Your task to perform on an android device: read, delete, or share a saved page in the chrome app Image 0: 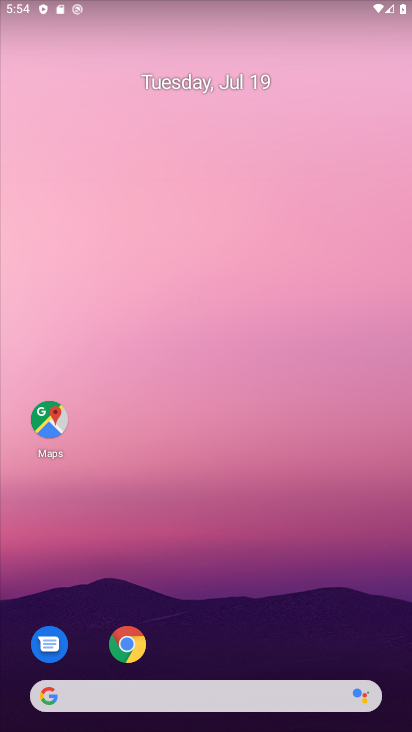
Step 0: click (129, 644)
Your task to perform on an android device: read, delete, or share a saved page in the chrome app Image 1: 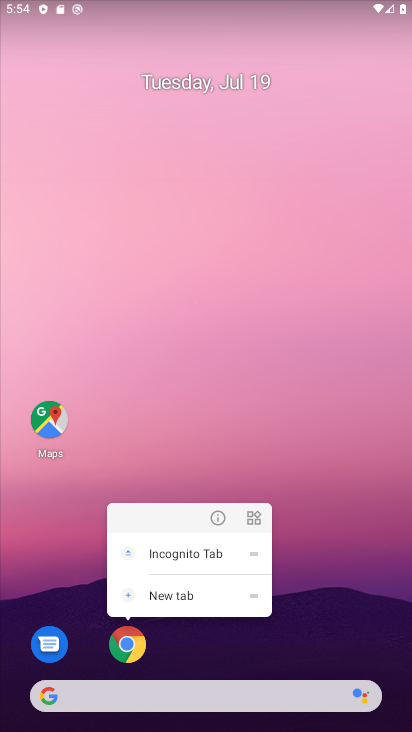
Step 1: click (129, 644)
Your task to perform on an android device: read, delete, or share a saved page in the chrome app Image 2: 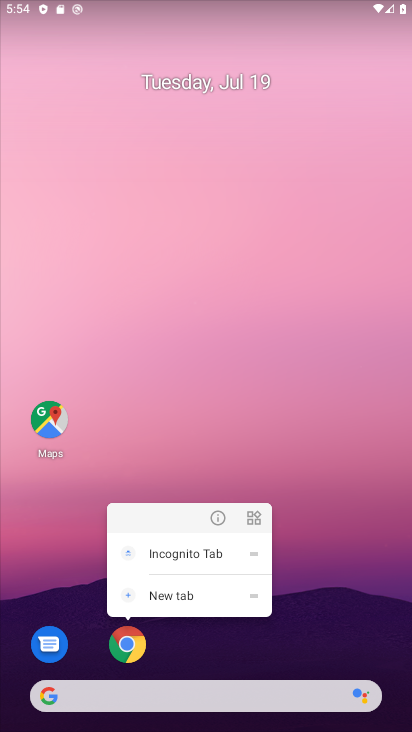
Step 2: click (129, 644)
Your task to perform on an android device: read, delete, or share a saved page in the chrome app Image 3: 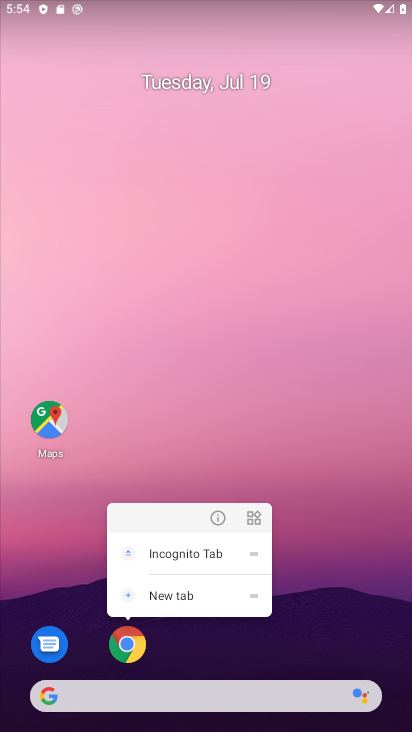
Step 3: click (129, 644)
Your task to perform on an android device: read, delete, or share a saved page in the chrome app Image 4: 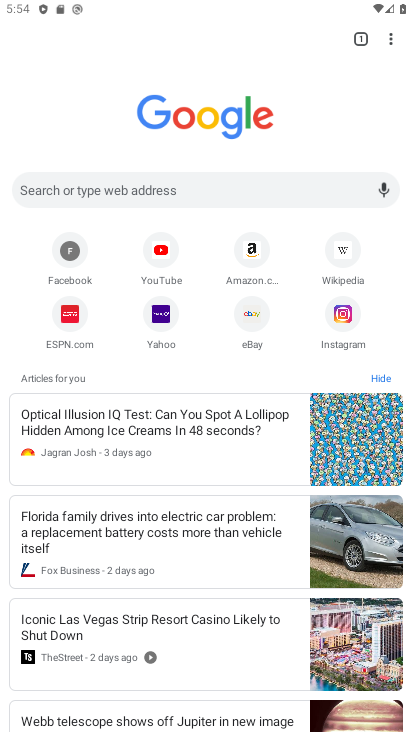
Step 4: click (391, 36)
Your task to perform on an android device: read, delete, or share a saved page in the chrome app Image 5: 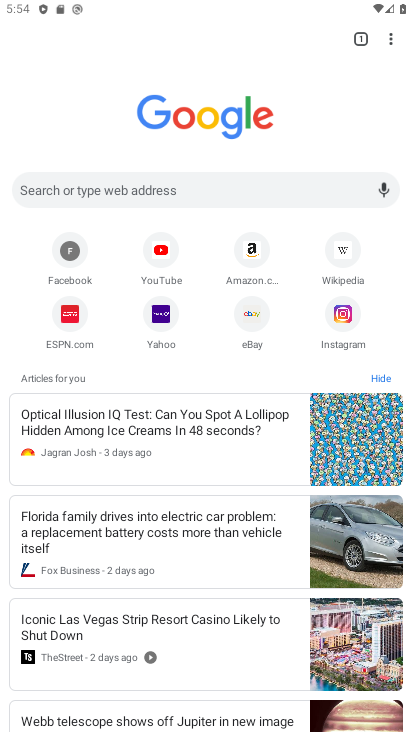
Step 5: click (390, 37)
Your task to perform on an android device: read, delete, or share a saved page in the chrome app Image 6: 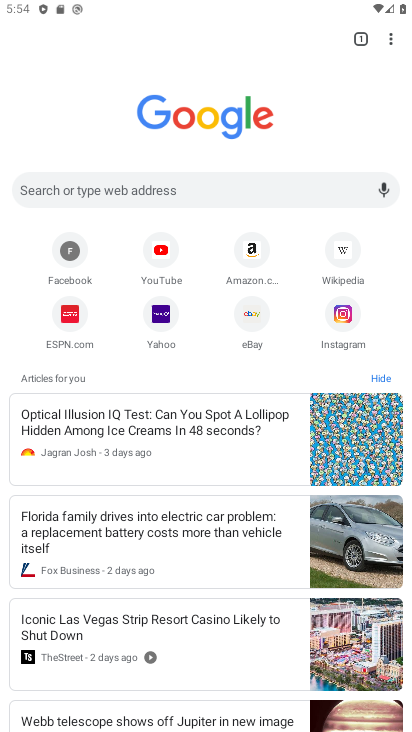
Step 6: click (390, 37)
Your task to perform on an android device: read, delete, or share a saved page in the chrome app Image 7: 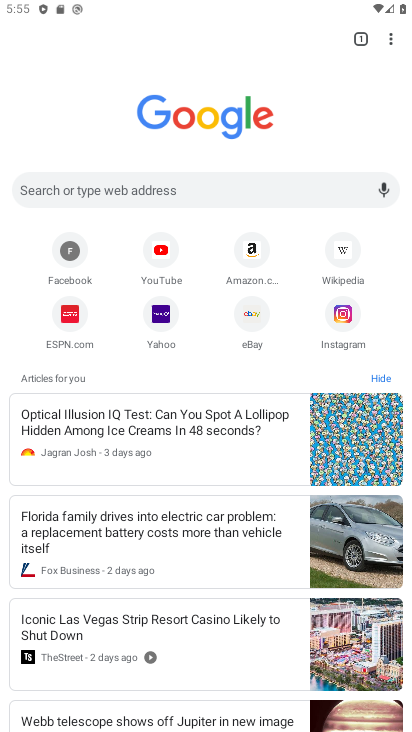
Step 7: click (389, 40)
Your task to perform on an android device: read, delete, or share a saved page in the chrome app Image 8: 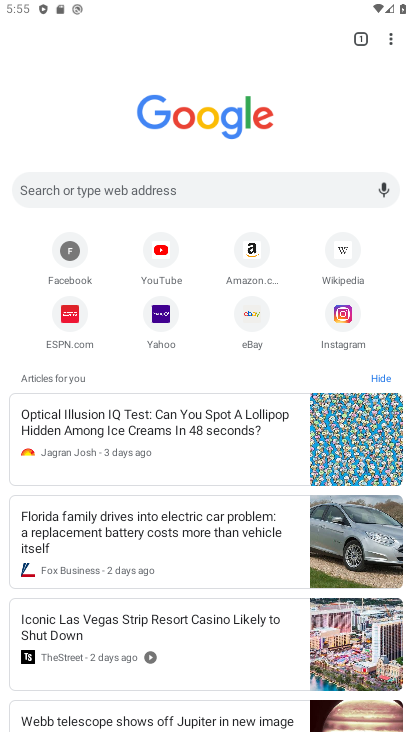
Step 8: click (391, 37)
Your task to perform on an android device: read, delete, or share a saved page in the chrome app Image 9: 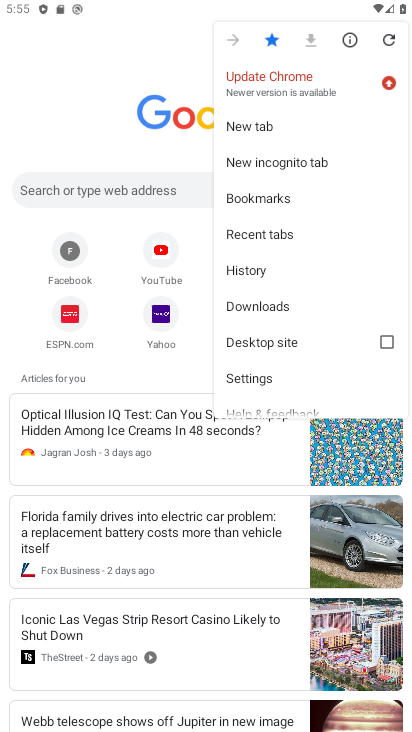
Step 9: click (262, 372)
Your task to perform on an android device: read, delete, or share a saved page in the chrome app Image 10: 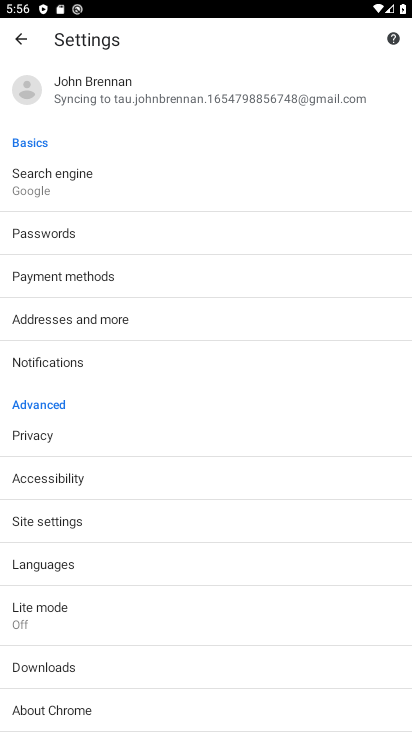
Step 10: task complete